Your task to perform on an android device: View the shopping cart on target.com. Add apple airpods to the cart on target.com Image 0: 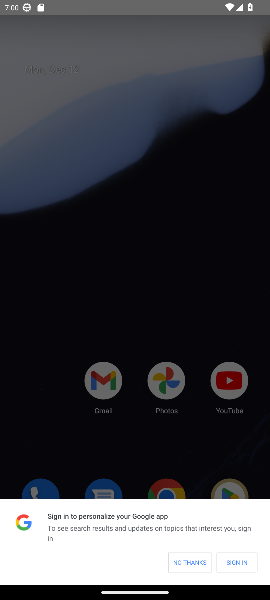
Step 0: press home button
Your task to perform on an android device: View the shopping cart on target.com. Add apple airpods to the cart on target.com Image 1: 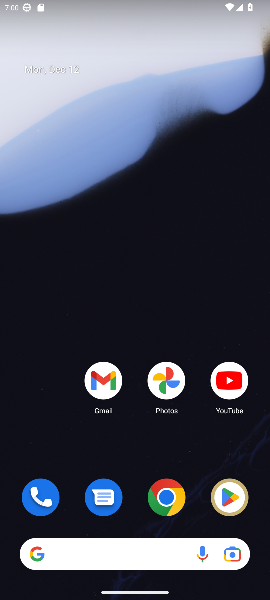
Step 1: drag from (41, 421) to (39, 73)
Your task to perform on an android device: View the shopping cart on target.com. Add apple airpods to the cart on target.com Image 2: 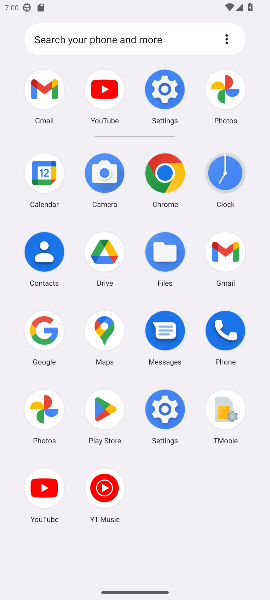
Step 2: click (46, 331)
Your task to perform on an android device: View the shopping cart on target.com. Add apple airpods to the cart on target.com Image 3: 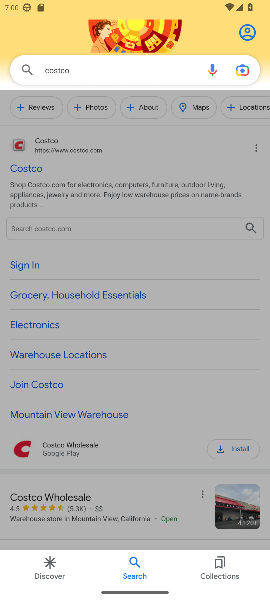
Step 3: click (110, 74)
Your task to perform on an android device: View the shopping cart on target.com. Add apple airpods to the cart on target.com Image 4: 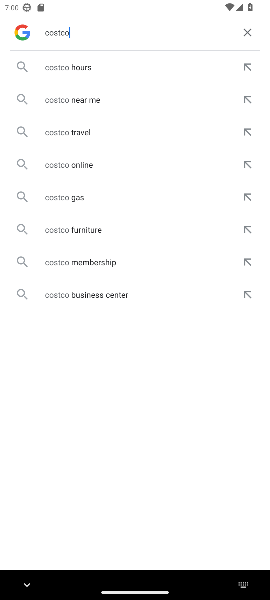
Step 4: click (243, 29)
Your task to perform on an android device: View the shopping cart on target.com. Add apple airpods to the cart on target.com Image 5: 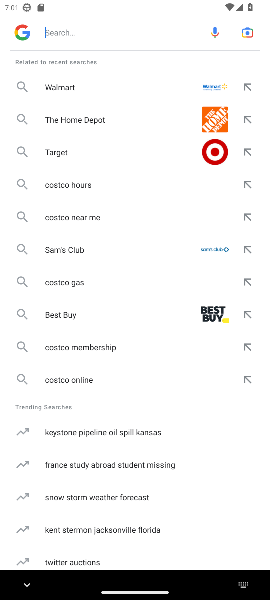
Step 5: type "target.com"
Your task to perform on an android device: View the shopping cart on target.com. Add apple airpods to the cart on target.com Image 6: 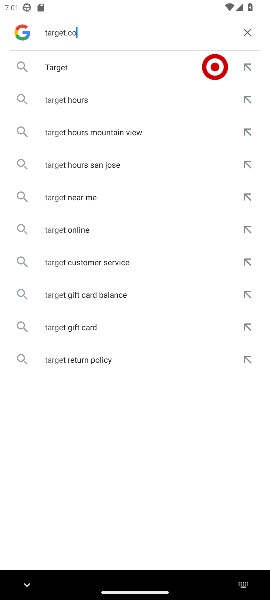
Step 6: press enter
Your task to perform on an android device: View the shopping cart on target.com. Add apple airpods to the cart on target.com Image 7: 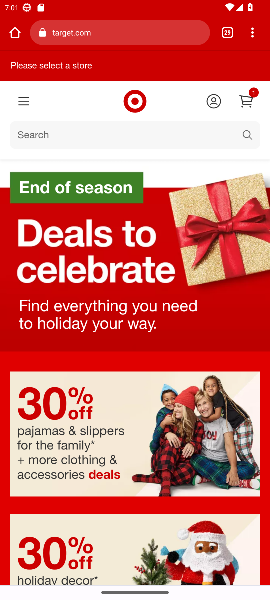
Step 7: click (239, 101)
Your task to perform on an android device: View the shopping cart on target.com. Add apple airpods to the cart on target.com Image 8: 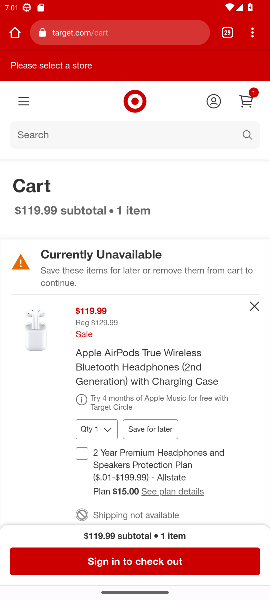
Step 8: click (254, 304)
Your task to perform on an android device: View the shopping cart on target.com. Add apple airpods to the cart on target.com Image 9: 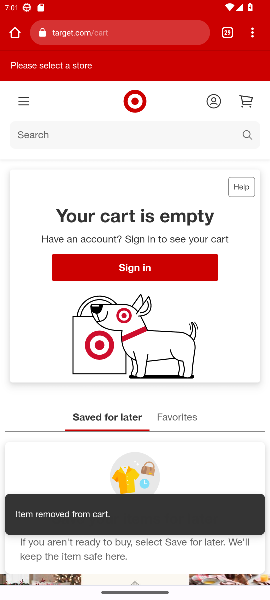
Step 9: click (60, 135)
Your task to perform on an android device: View the shopping cart on target.com. Add apple airpods to the cart on target.com Image 10: 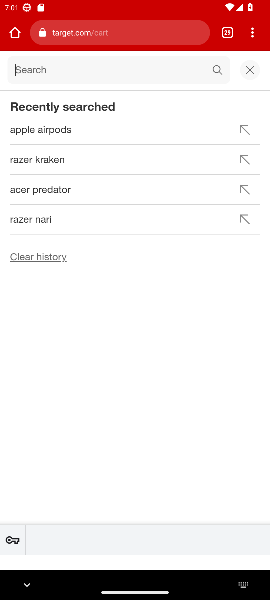
Step 10: type "apple airpods"
Your task to perform on an android device: View the shopping cart on target.com. Add apple airpods to the cart on target.com Image 11: 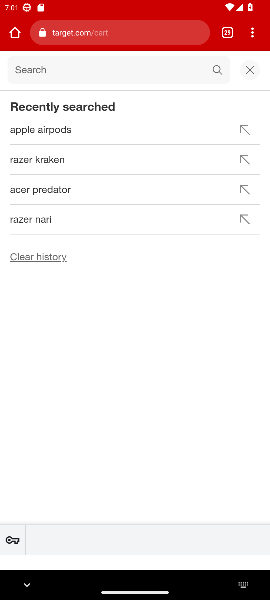
Step 11: press enter
Your task to perform on an android device: View the shopping cart on target.com. Add apple airpods to the cart on target.com Image 12: 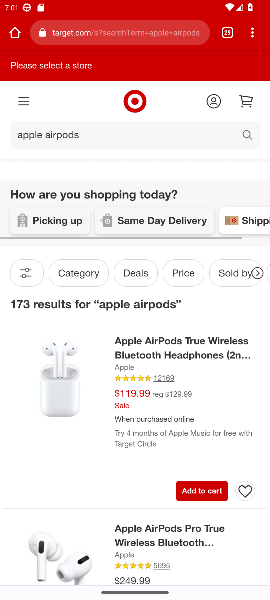
Step 12: click (186, 488)
Your task to perform on an android device: View the shopping cart on target.com. Add apple airpods to the cart on target.com Image 13: 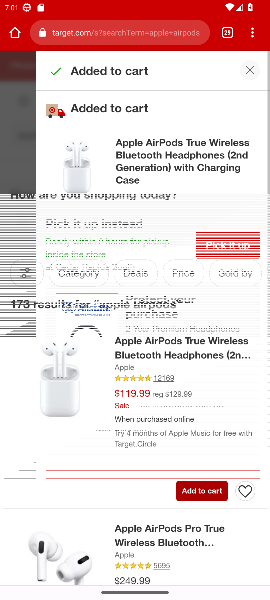
Step 13: task complete